Your task to perform on an android device: Open the stopwatch Image 0: 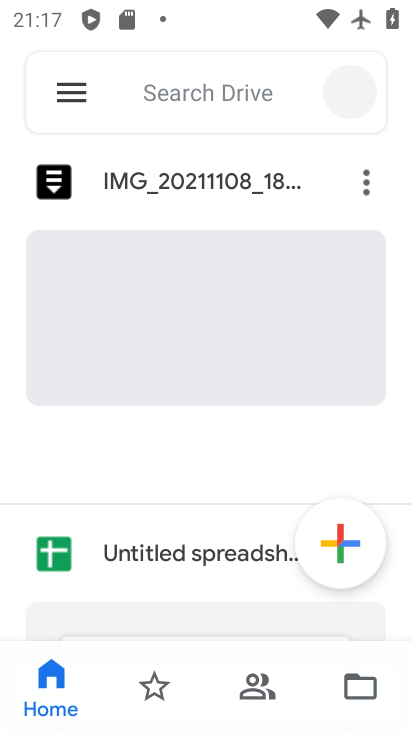
Step 0: press home button
Your task to perform on an android device: Open the stopwatch Image 1: 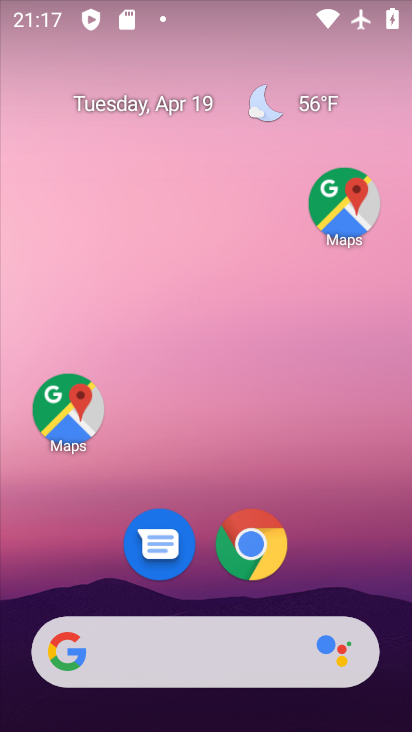
Step 1: drag from (150, 649) to (291, 84)
Your task to perform on an android device: Open the stopwatch Image 2: 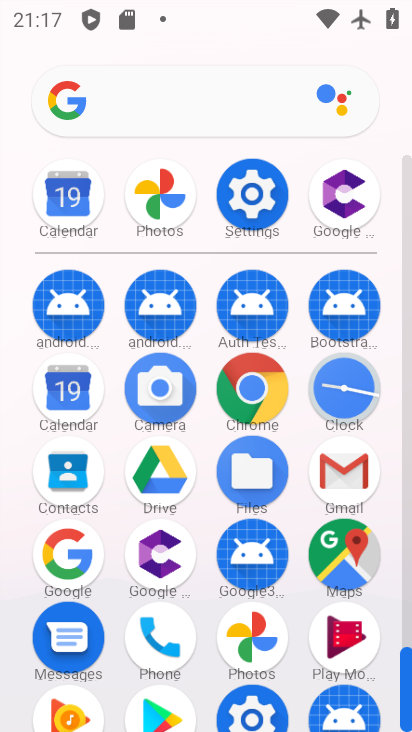
Step 2: click (344, 392)
Your task to perform on an android device: Open the stopwatch Image 3: 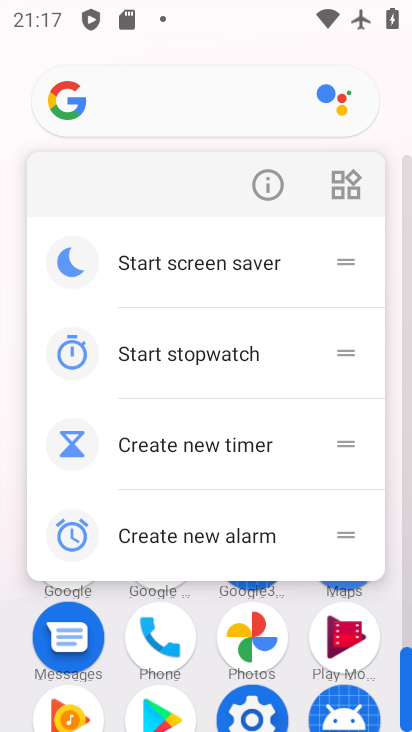
Step 3: drag from (222, 676) to (302, 527)
Your task to perform on an android device: Open the stopwatch Image 4: 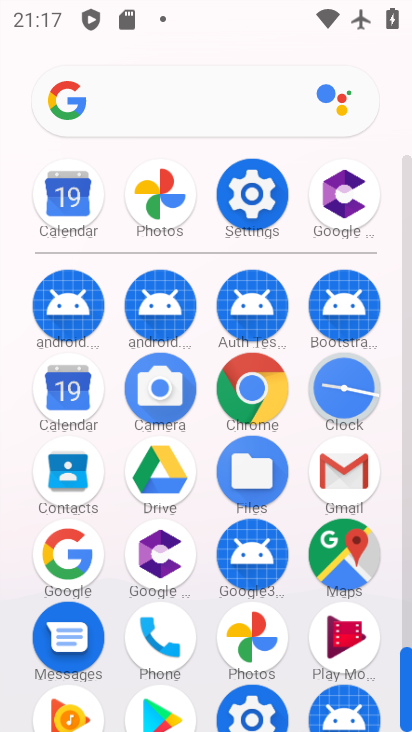
Step 4: click (333, 396)
Your task to perform on an android device: Open the stopwatch Image 5: 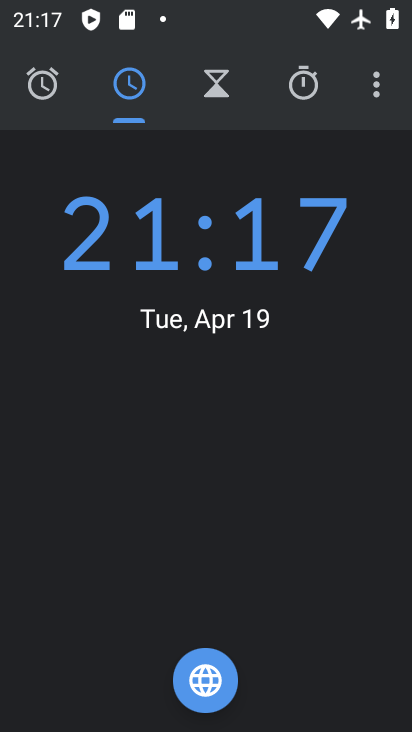
Step 5: click (306, 87)
Your task to perform on an android device: Open the stopwatch Image 6: 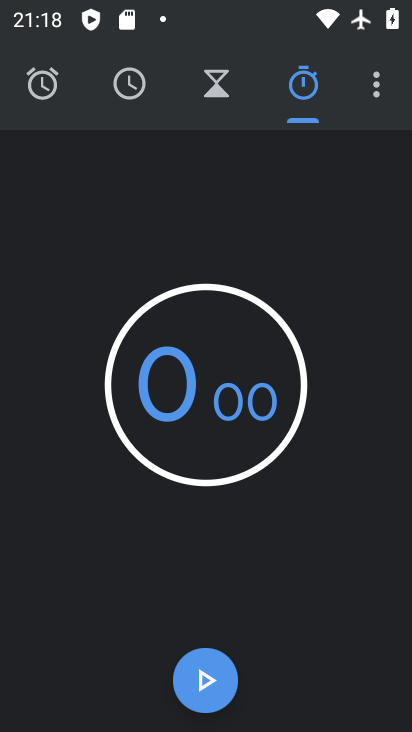
Step 6: task complete